Your task to perform on an android device: What's on the menu at Cheesecake Factory? Image 0: 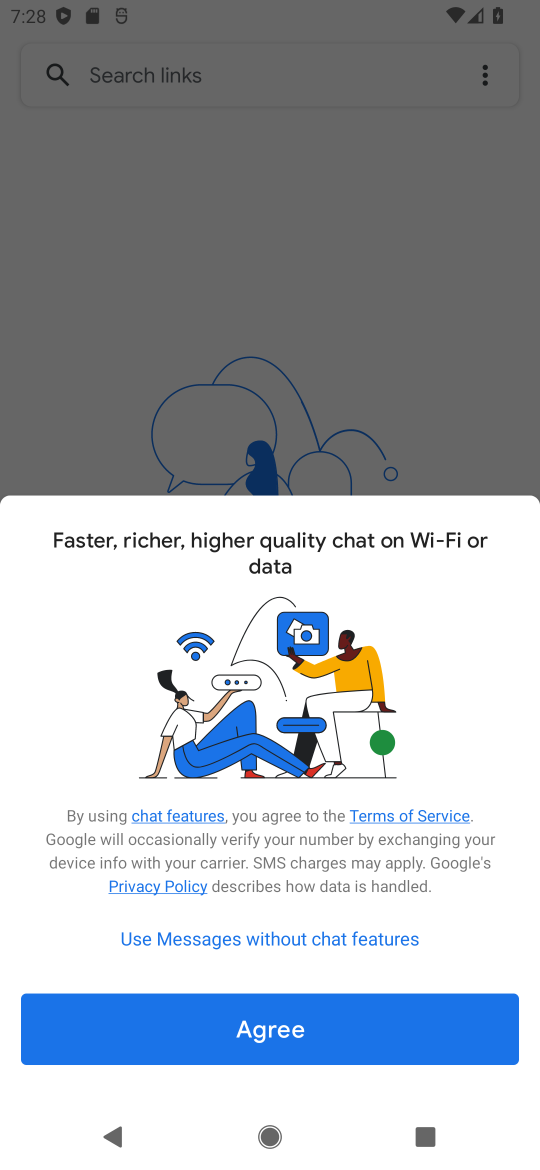
Step 0: press home button
Your task to perform on an android device: What's on the menu at Cheesecake Factory? Image 1: 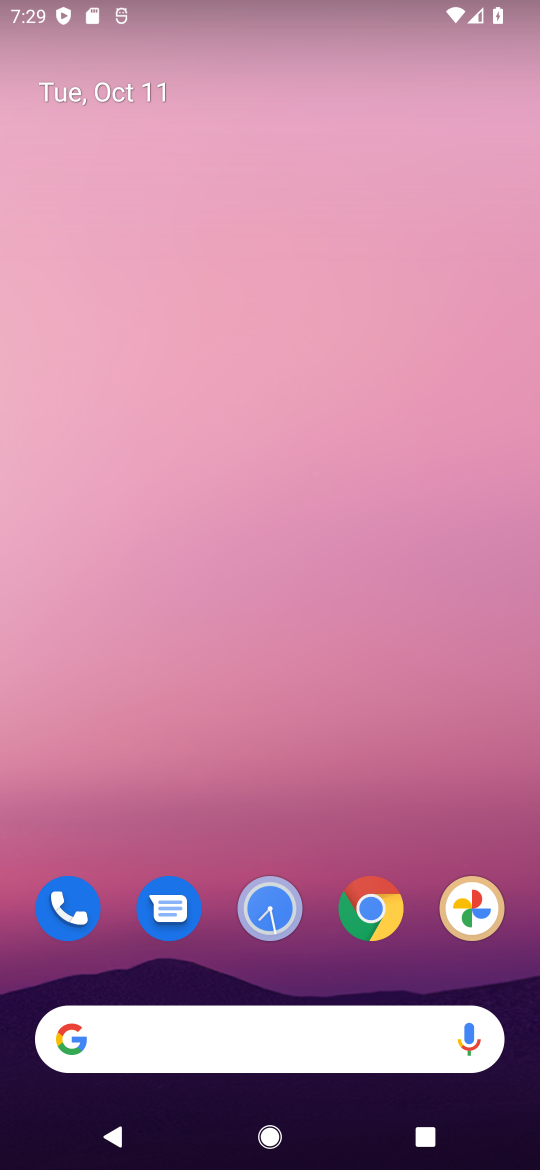
Step 1: click (258, 1025)
Your task to perform on an android device: What's on the menu at Cheesecake Factory? Image 2: 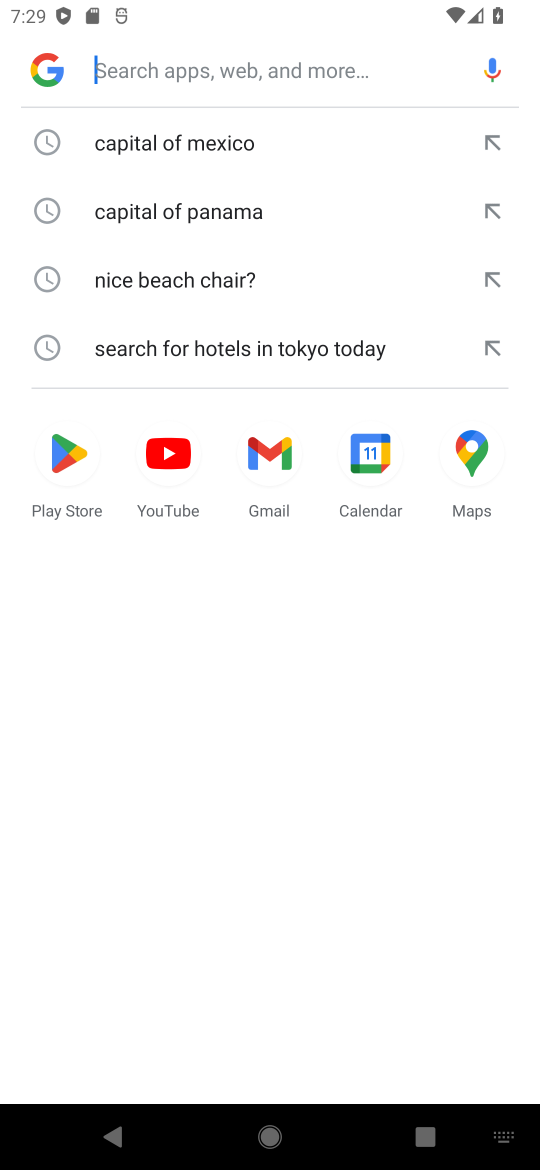
Step 2: type "What's on the menu at Cheesecake Factory?"
Your task to perform on an android device: What's on the menu at Cheesecake Factory? Image 3: 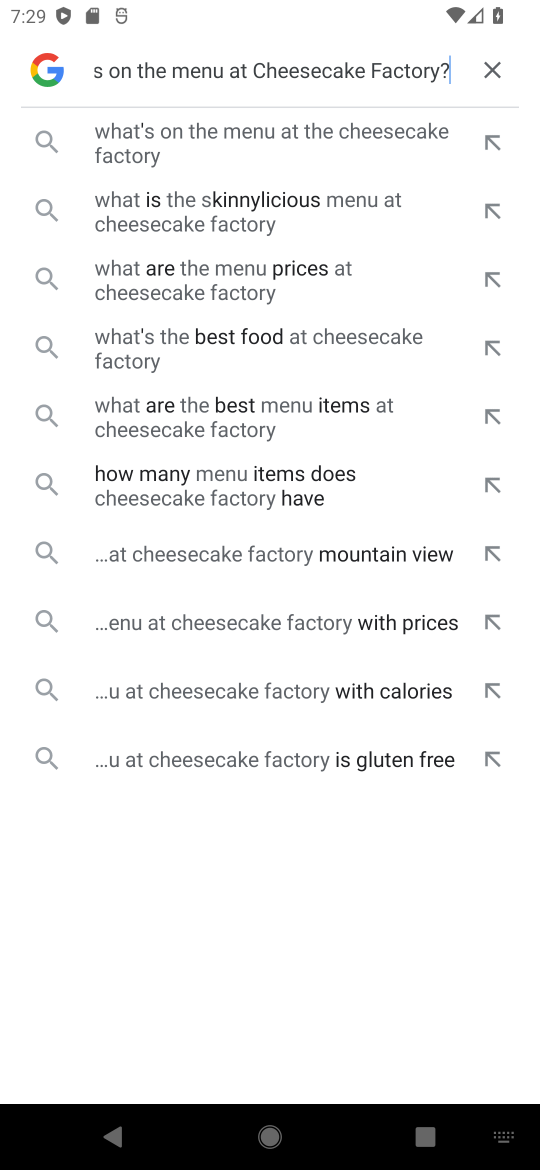
Step 3: click (211, 151)
Your task to perform on an android device: What's on the menu at Cheesecake Factory? Image 4: 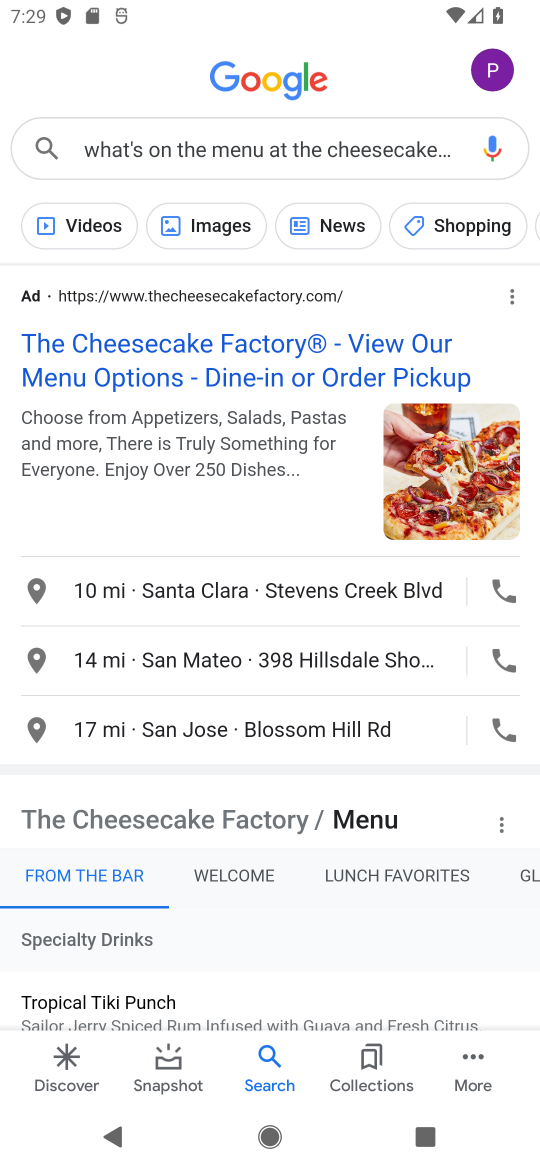
Step 4: click (227, 354)
Your task to perform on an android device: What's on the menu at Cheesecake Factory? Image 5: 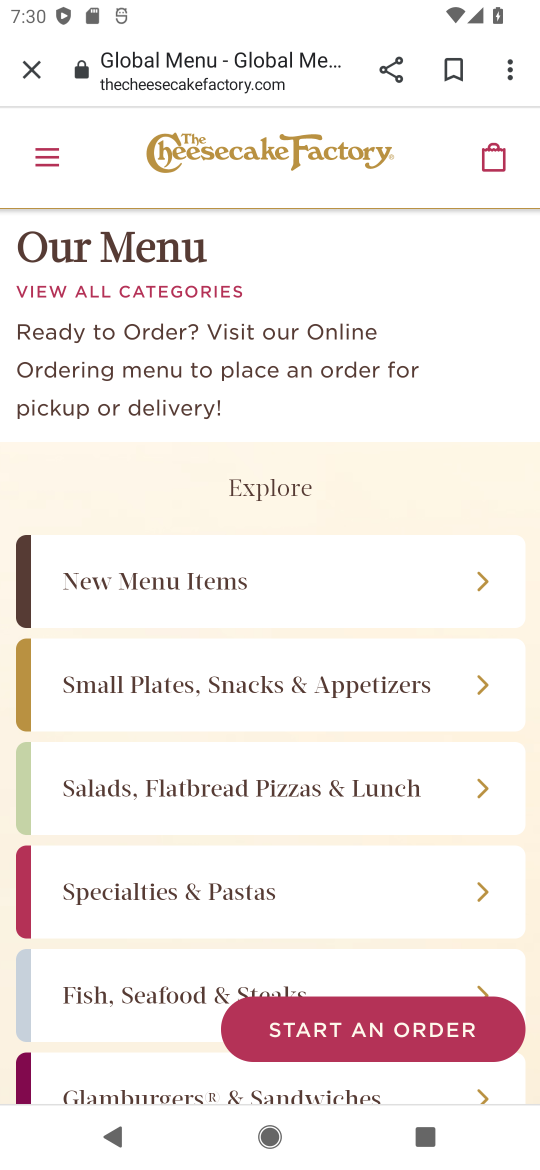
Step 5: task complete